Your task to perform on an android device: toggle improve location accuracy Image 0: 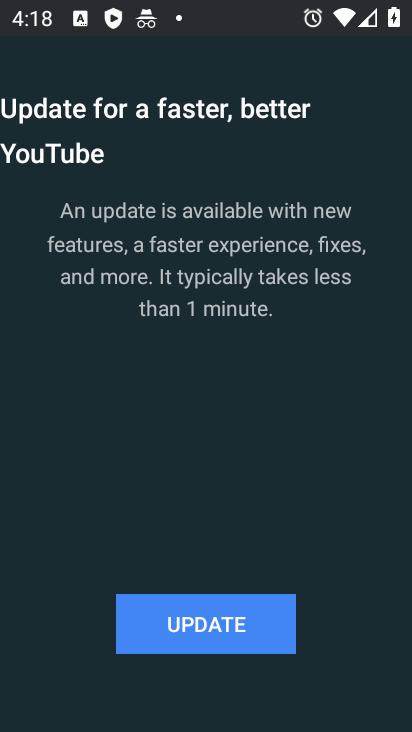
Step 0: press home button
Your task to perform on an android device: toggle improve location accuracy Image 1: 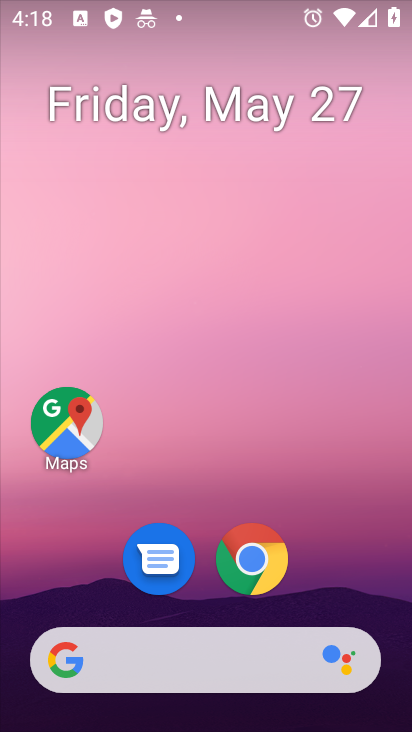
Step 1: drag from (337, 646) to (409, 154)
Your task to perform on an android device: toggle improve location accuracy Image 2: 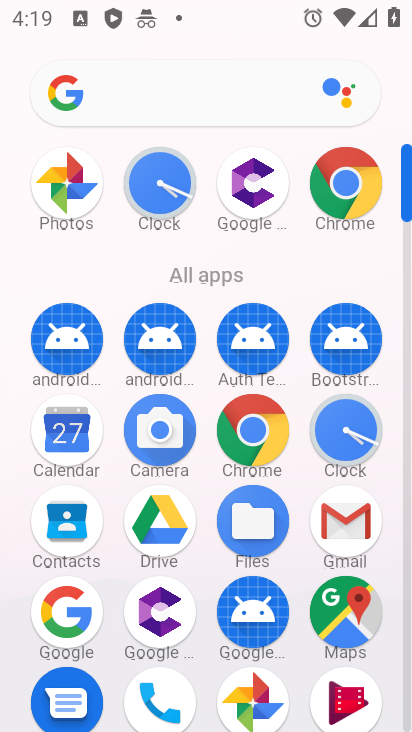
Step 2: drag from (264, 676) to (284, 249)
Your task to perform on an android device: toggle improve location accuracy Image 3: 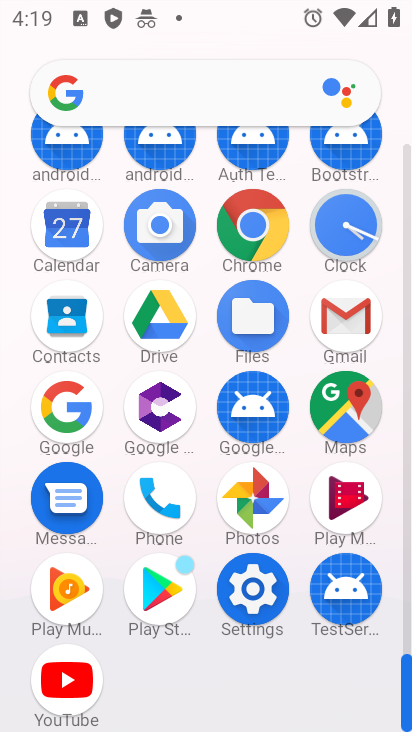
Step 3: click (257, 579)
Your task to perform on an android device: toggle improve location accuracy Image 4: 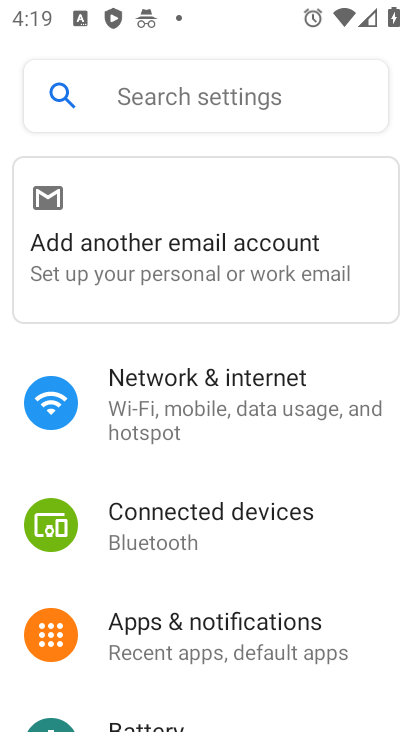
Step 4: drag from (272, 679) to (346, 133)
Your task to perform on an android device: toggle improve location accuracy Image 5: 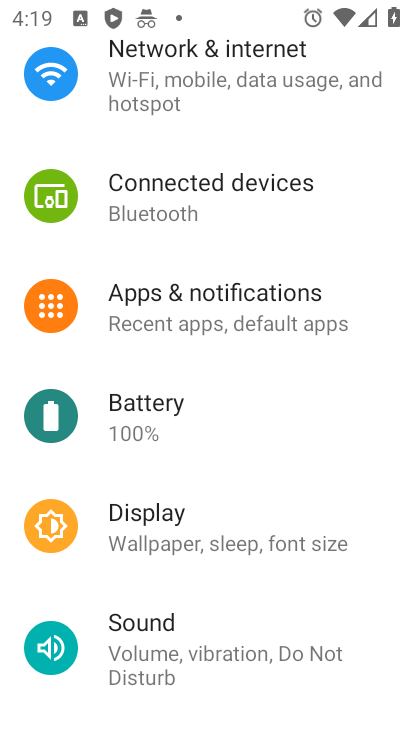
Step 5: drag from (292, 669) to (302, 98)
Your task to perform on an android device: toggle improve location accuracy Image 6: 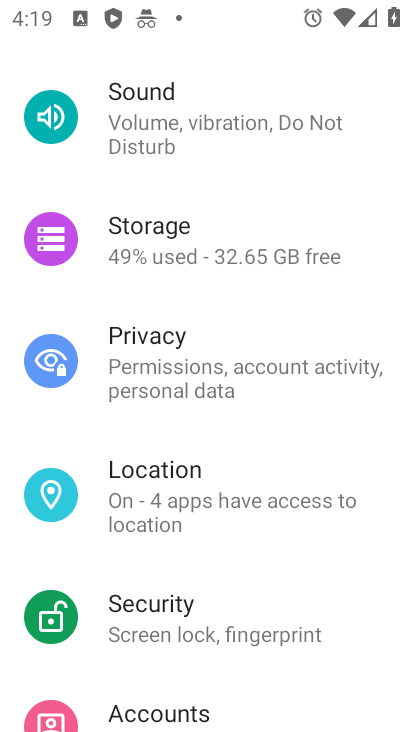
Step 6: click (222, 486)
Your task to perform on an android device: toggle improve location accuracy Image 7: 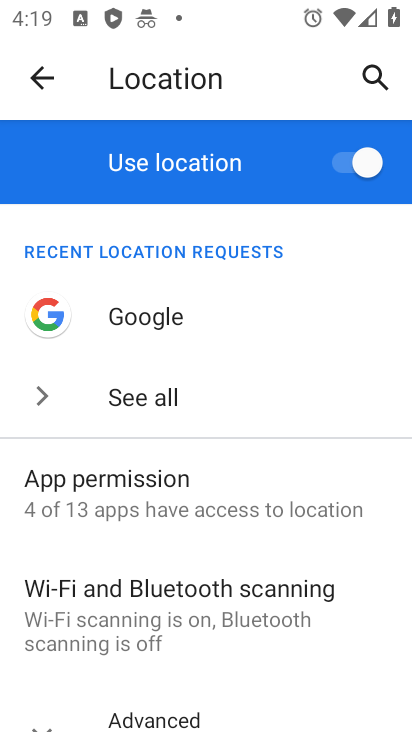
Step 7: drag from (201, 680) to (243, 164)
Your task to perform on an android device: toggle improve location accuracy Image 8: 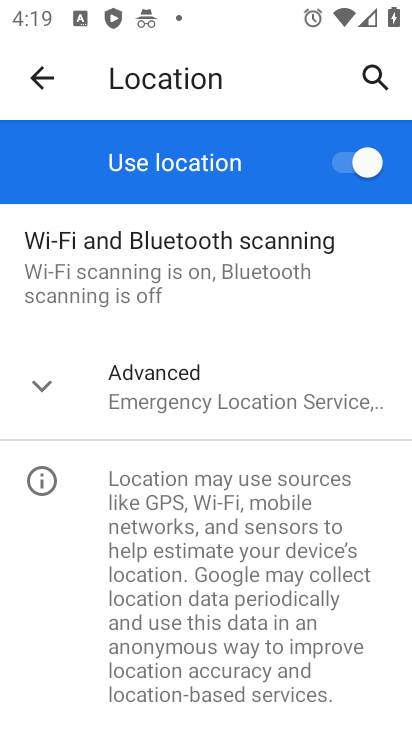
Step 8: drag from (265, 591) to (271, 370)
Your task to perform on an android device: toggle improve location accuracy Image 9: 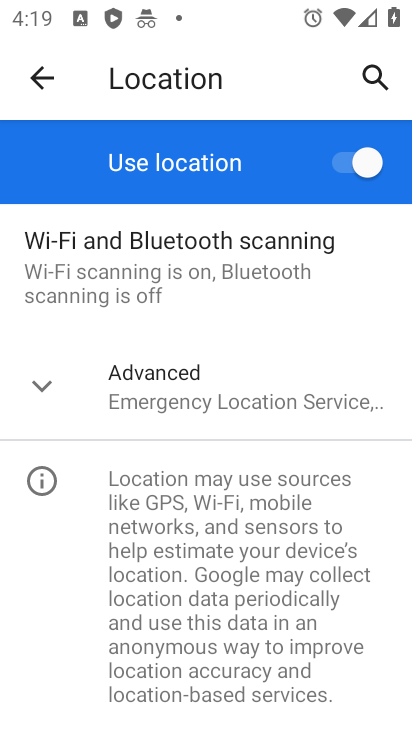
Step 9: click (245, 387)
Your task to perform on an android device: toggle improve location accuracy Image 10: 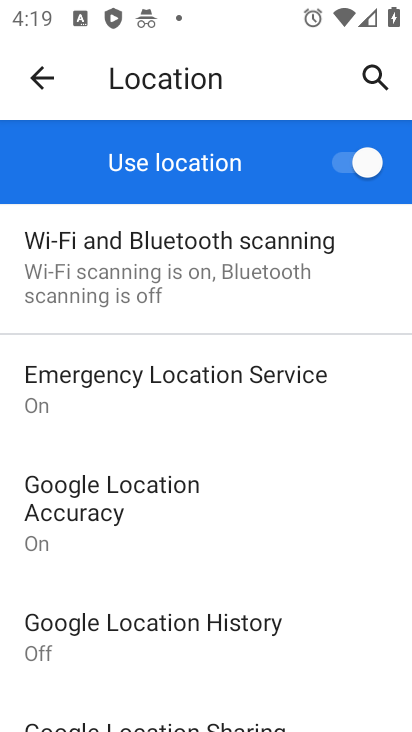
Step 10: drag from (290, 715) to (321, 379)
Your task to perform on an android device: toggle improve location accuracy Image 11: 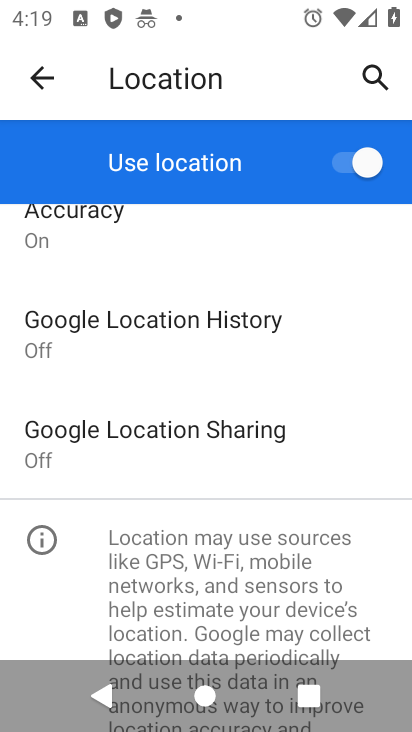
Step 11: click (155, 252)
Your task to perform on an android device: toggle improve location accuracy Image 12: 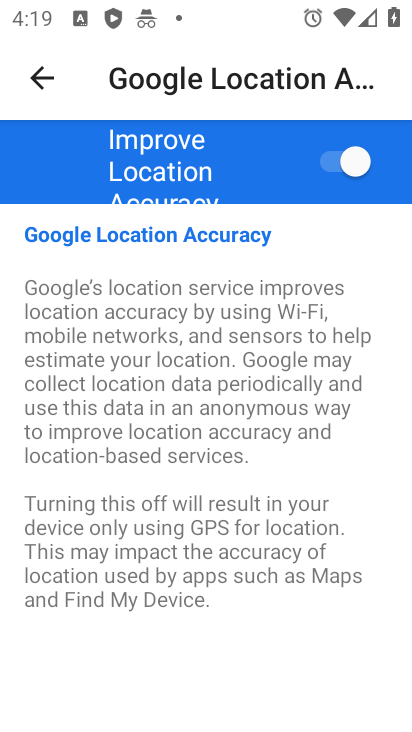
Step 12: click (341, 161)
Your task to perform on an android device: toggle improve location accuracy Image 13: 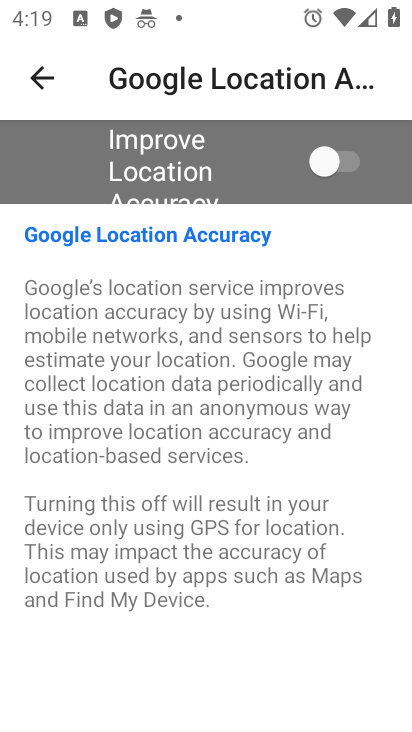
Step 13: task complete